Your task to perform on an android device: Search for Mexican restaurants on Maps Image 0: 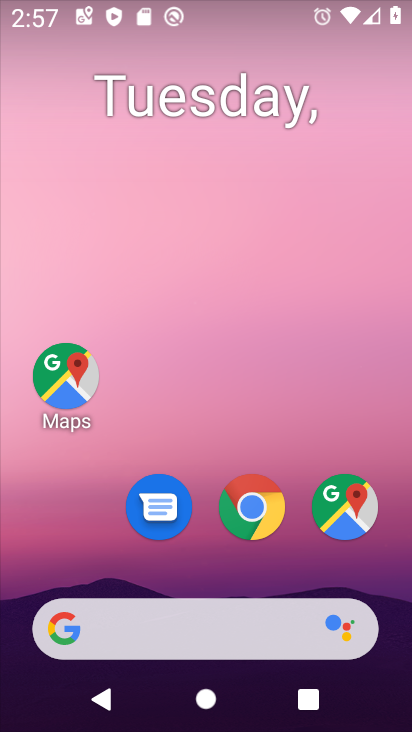
Step 0: click (255, 512)
Your task to perform on an android device: Search for Mexican restaurants on Maps Image 1: 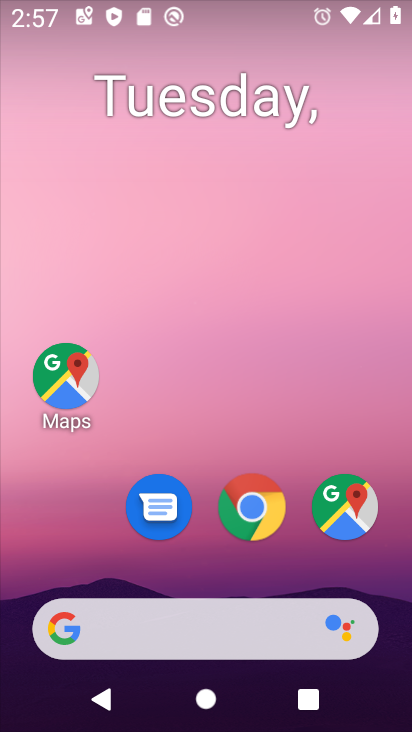
Step 1: click (255, 512)
Your task to perform on an android device: Search for Mexican restaurants on Maps Image 2: 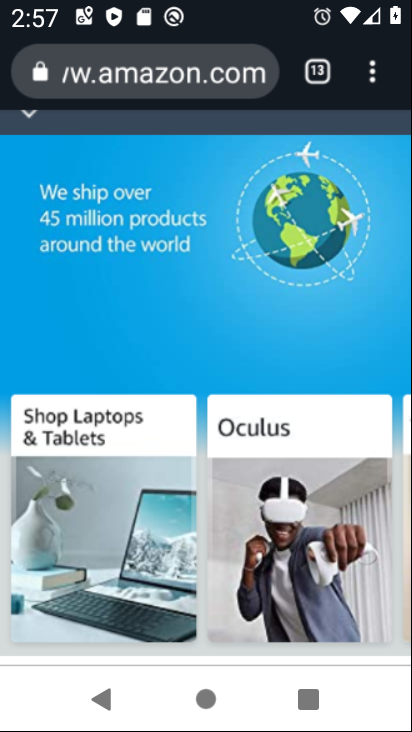
Step 2: press home button
Your task to perform on an android device: Search for Mexican restaurants on Maps Image 3: 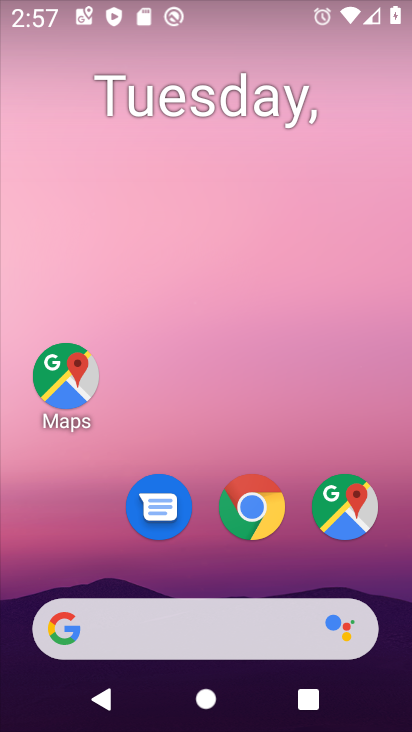
Step 3: click (349, 492)
Your task to perform on an android device: Search for Mexican restaurants on Maps Image 4: 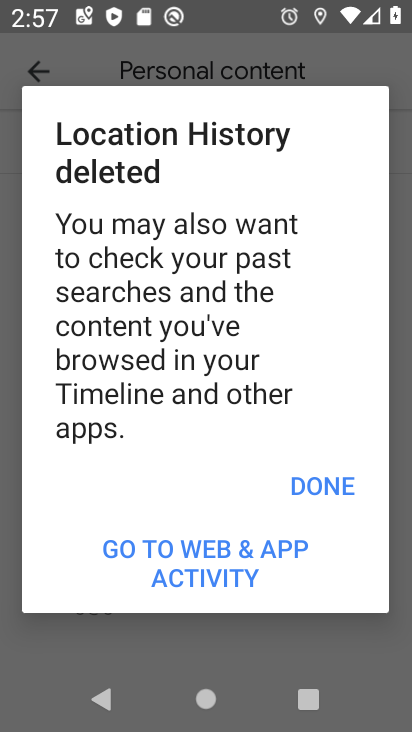
Step 4: click (317, 489)
Your task to perform on an android device: Search for Mexican restaurants on Maps Image 5: 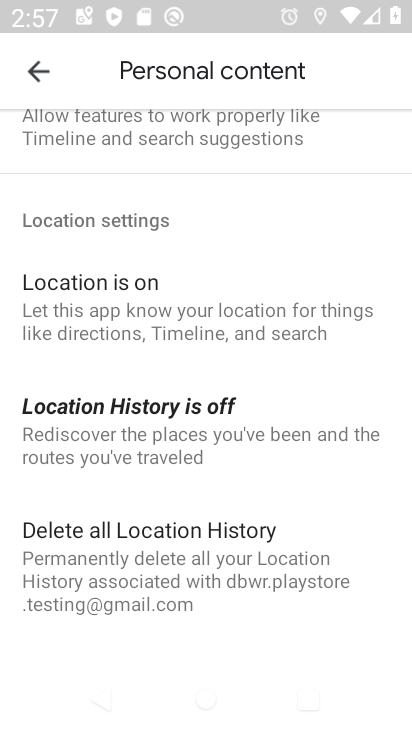
Step 5: click (36, 70)
Your task to perform on an android device: Search for Mexican restaurants on Maps Image 6: 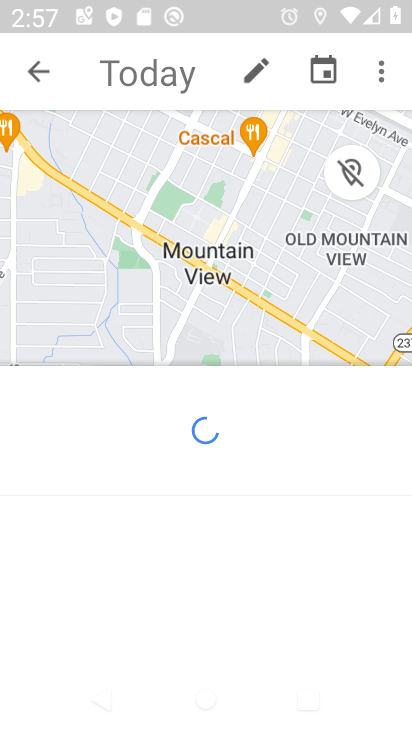
Step 6: click (36, 70)
Your task to perform on an android device: Search for Mexican restaurants on Maps Image 7: 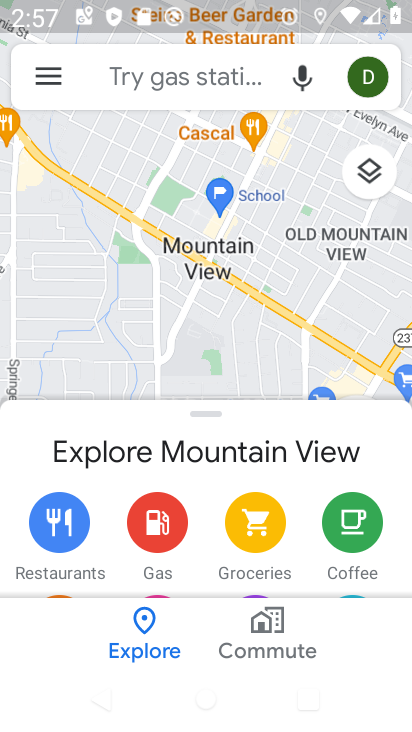
Step 7: click (129, 81)
Your task to perform on an android device: Search for Mexican restaurants on Maps Image 8: 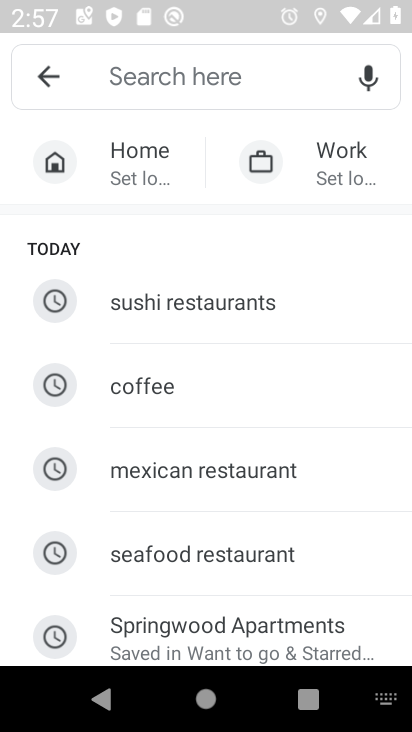
Step 8: click (194, 477)
Your task to perform on an android device: Search for Mexican restaurants on Maps Image 9: 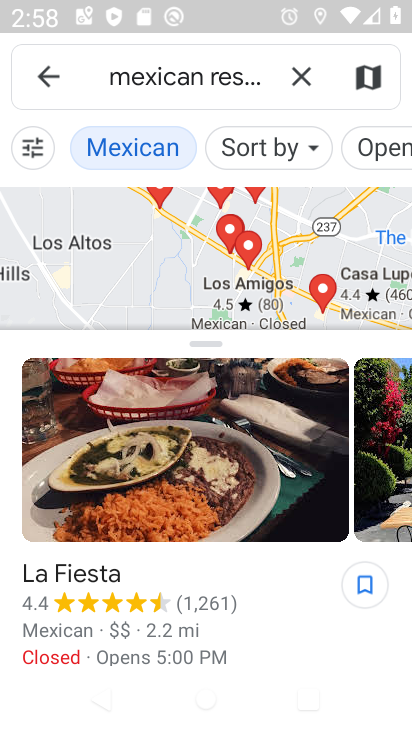
Step 9: task complete